Your task to perform on an android device: Go to Reddit.com Image 0: 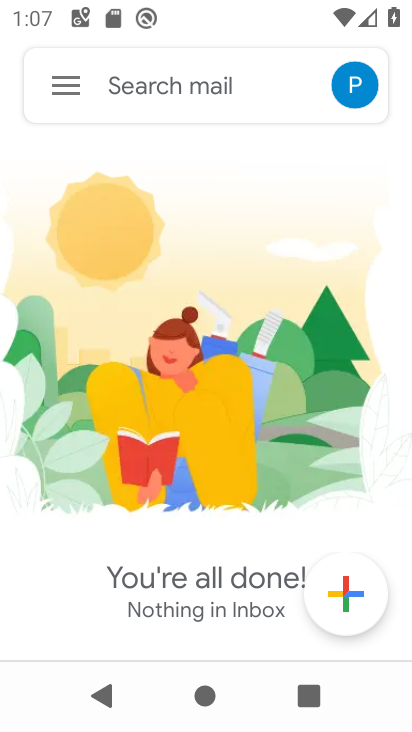
Step 0: press home button
Your task to perform on an android device: Go to Reddit.com Image 1: 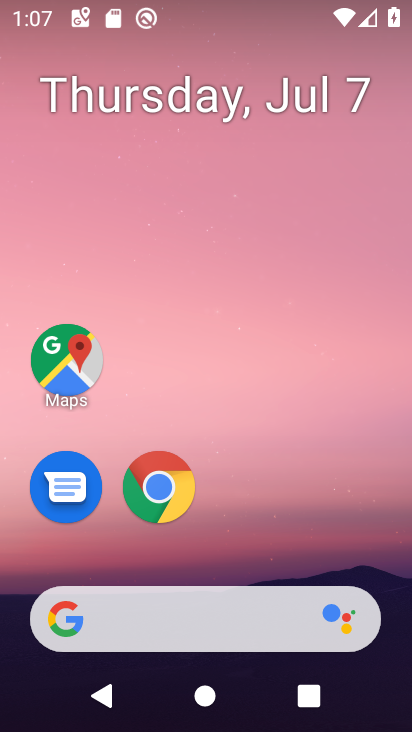
Step 1: drag from (350, 528) to (370, 138)
Your task to perform on an android device: Go to Reddit.com Image 2: 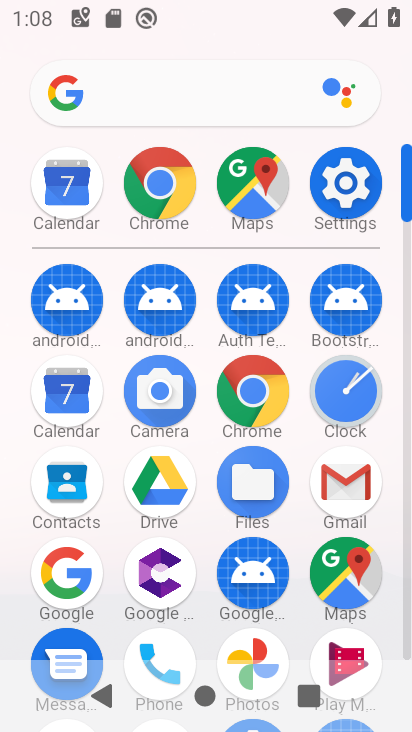
Step 2: click (257, 407)
Your task to perform on an android device: Go to Reddit.com Image 3: 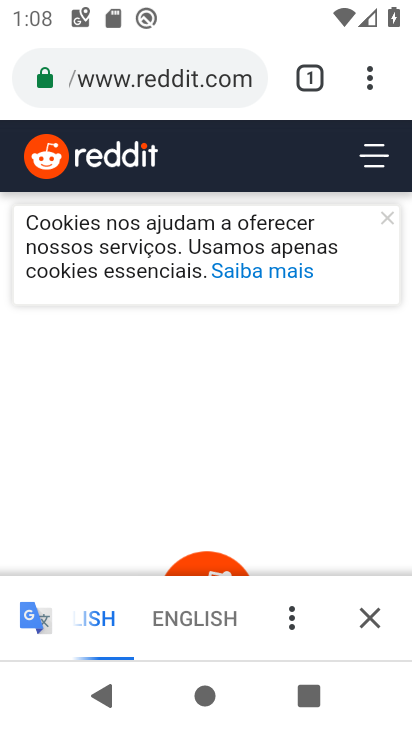
Step 3: click (182, 83)
Your task to perform on an android device: Go to Reddit.com Image 4: 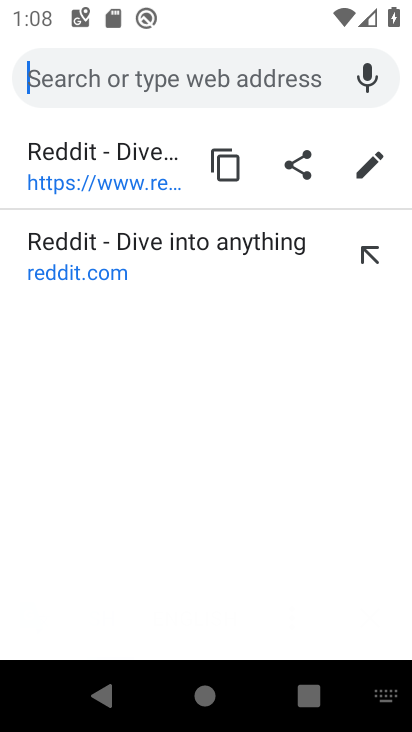
Step 4: type "reddit.com"
Your task to perform on an android device: Go to Reddit.com Image 5: 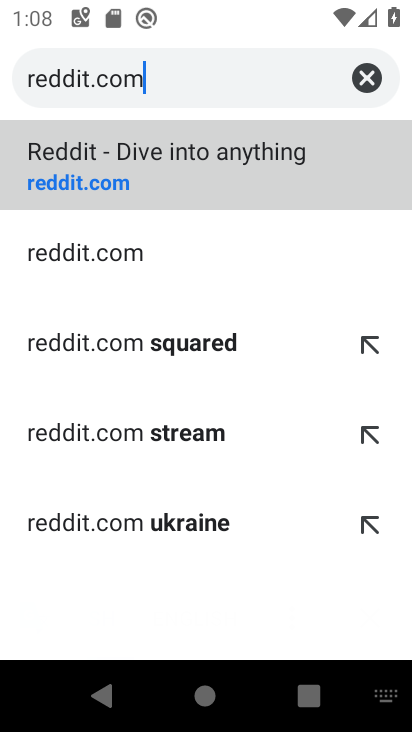
Step 5: click (119, 176)
Your task to perform on an android device: Go to Reddit.com Image 6: 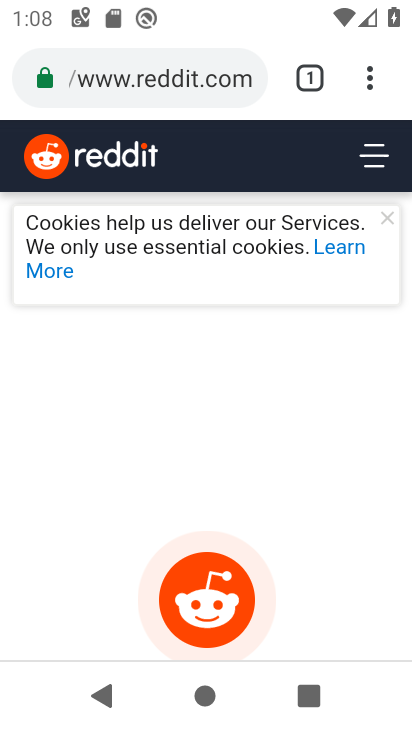
Step 6: task complete